Your task to perform on an android device: stop showing notifications on the lock screen Image 0: 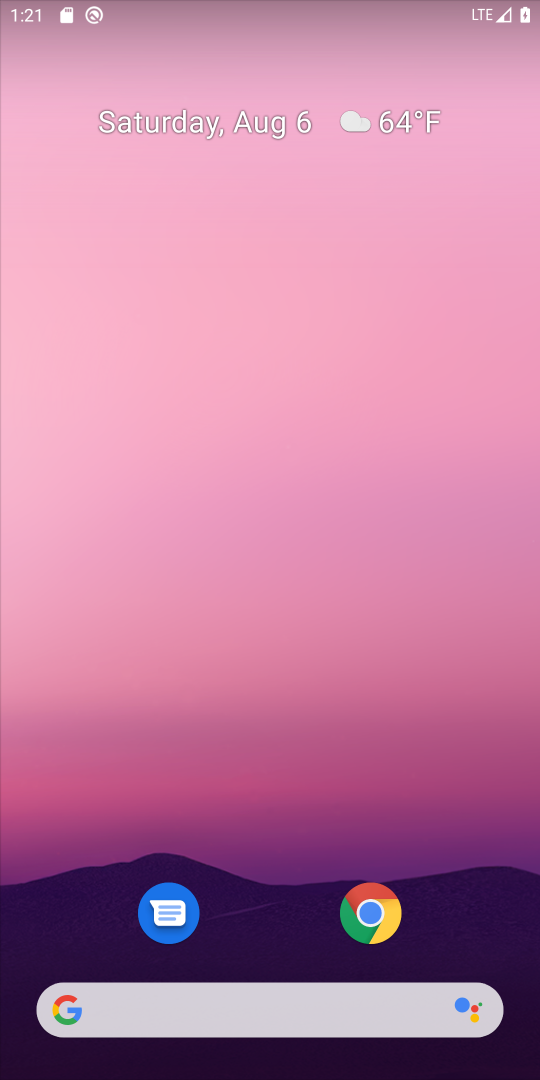
Step 0: press home button
Your task to perform on an android device: stop showing notifications on the lock screen Image 1: 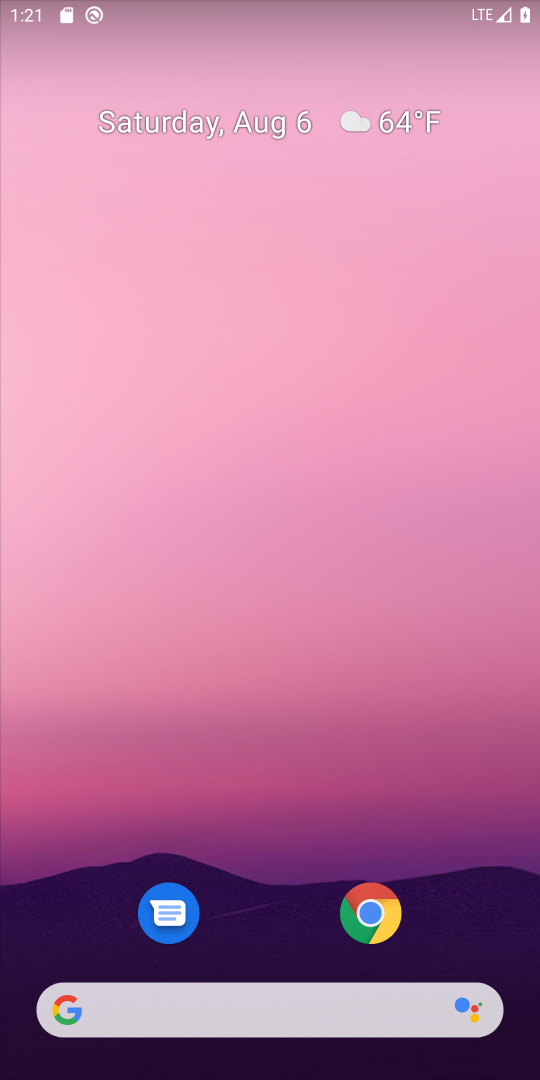
Step 1: drag from (260, 942) to (283, 261)
Your task to perform on an android device: stop showing notifications on the lock screen Image 2: 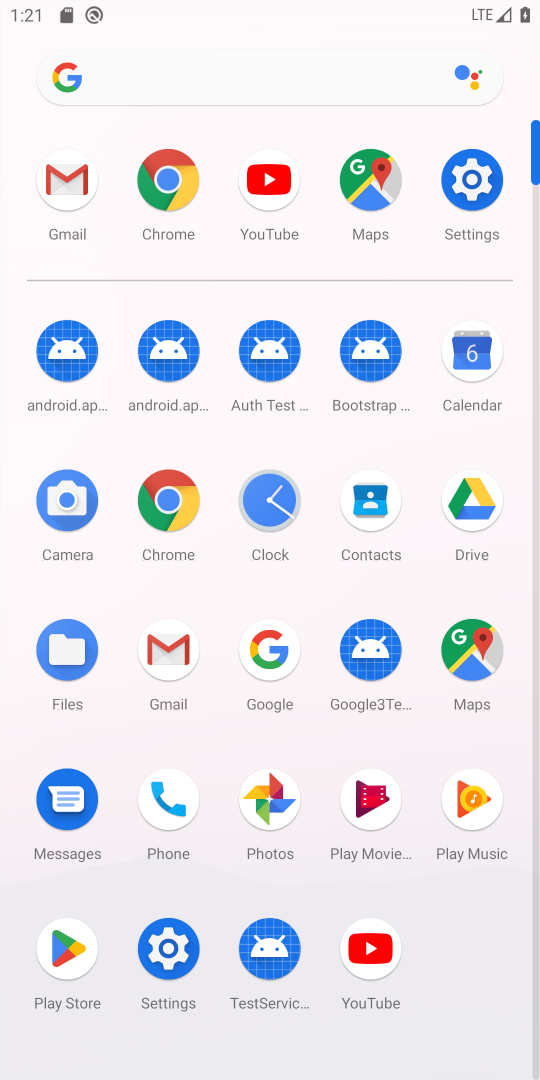
Step 2: click (479, 182)
Your task to perform on an android device: stop showing notifications on the lock screen Image 3: 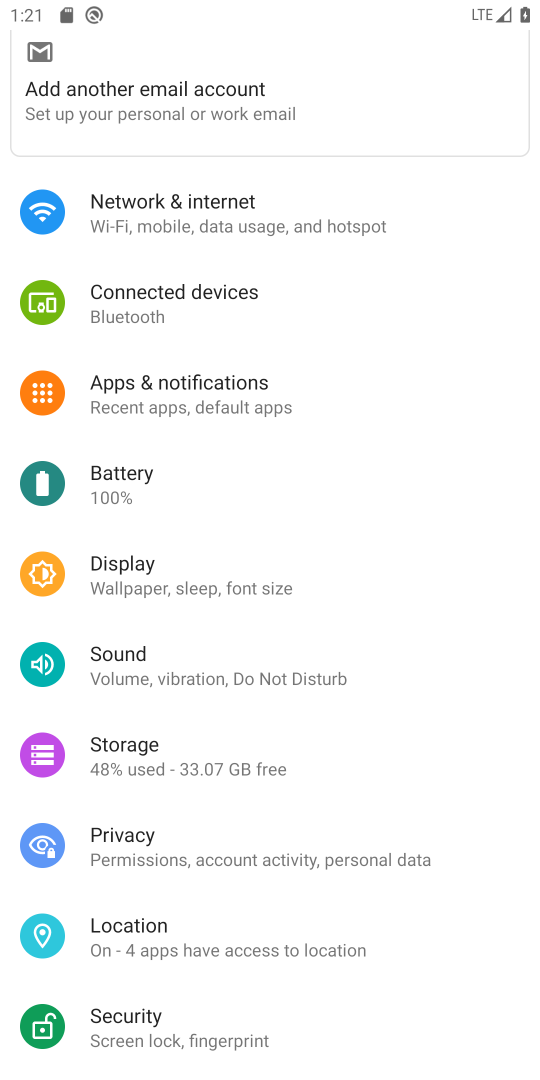
Step 3: drag from (432, 660) to (437, 512)
Your task to perform on an android device: stop showing notifications on the lock screen Image 4: 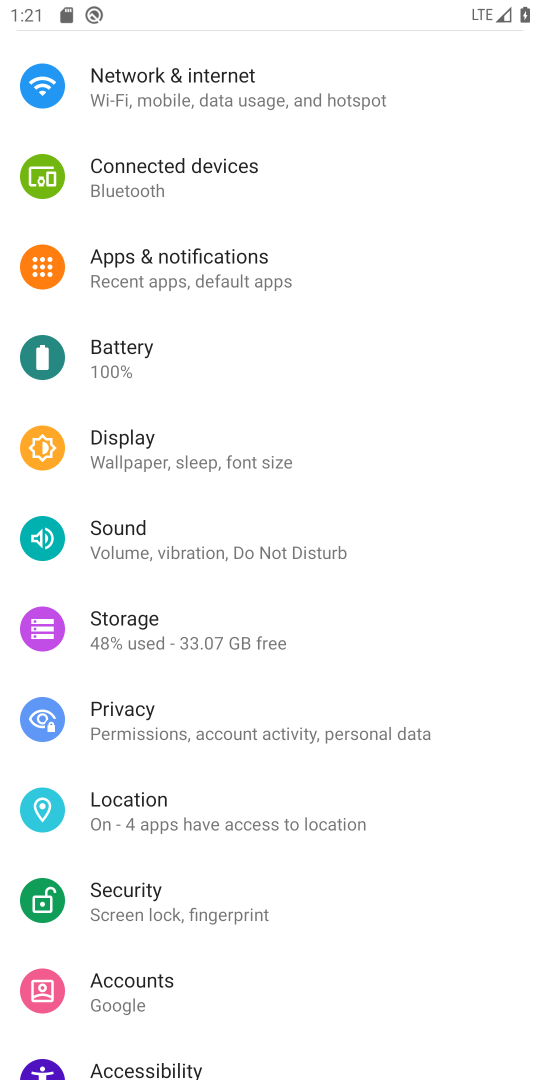
Step 4: drag from (462, 787) to (462, 572)
Your task to perform on an android device: stop showing notifications on the lock screen Image 5: 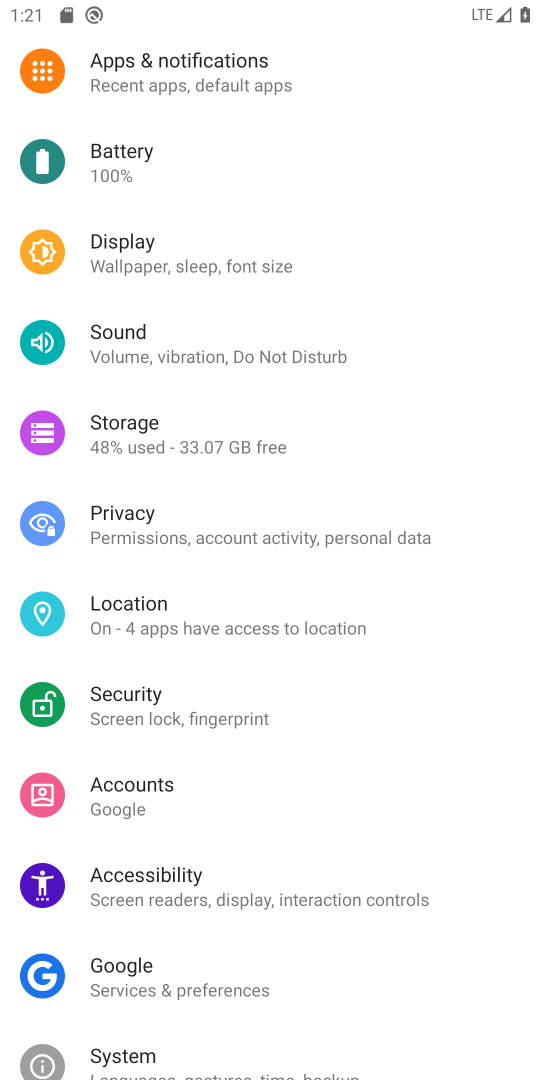
Step 5: drag from (443, 787) to (466, 561)
Your task to perform on an android device: stop showing notifications on the lock screen Image 6: 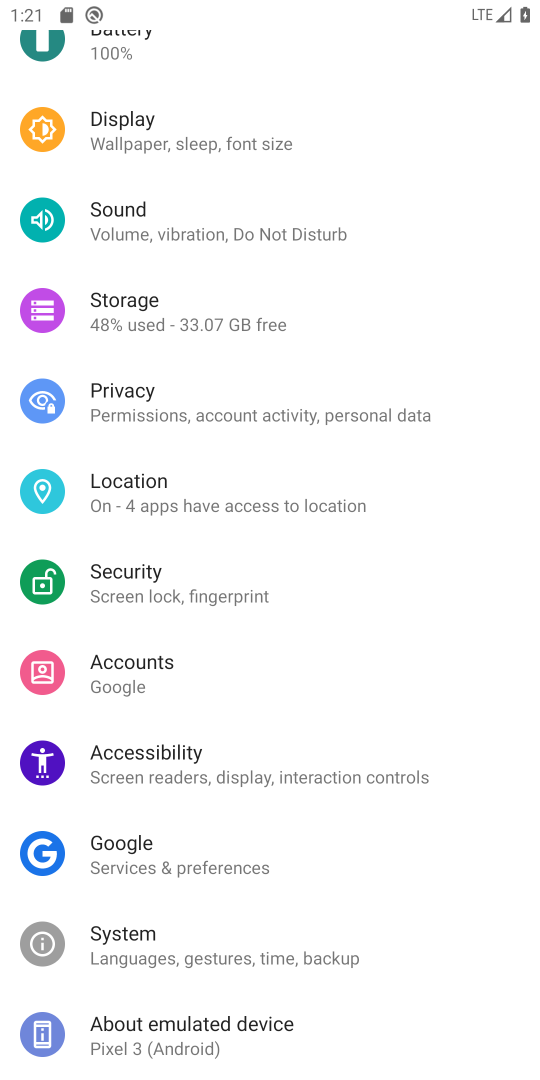
Step 6: drag from (455, 520) to (459, 621)
Your task to perform on an android device: stop showing notifications on the lock screen Image 7: 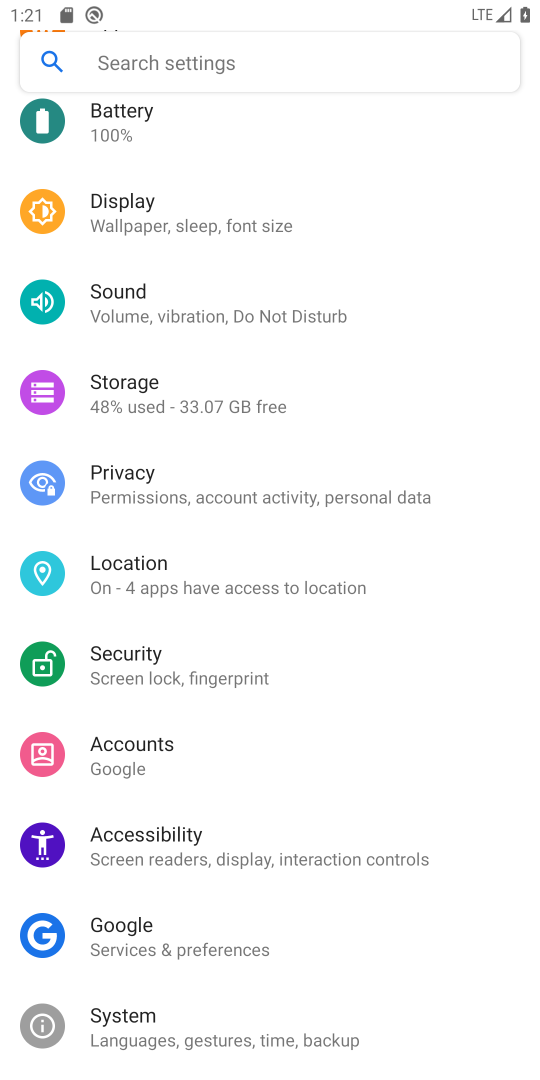
Step 7: drag from (477, 389) to (487, 576)
Your task to perform on an android device: stop showing notifications on the lock screen Image 8: 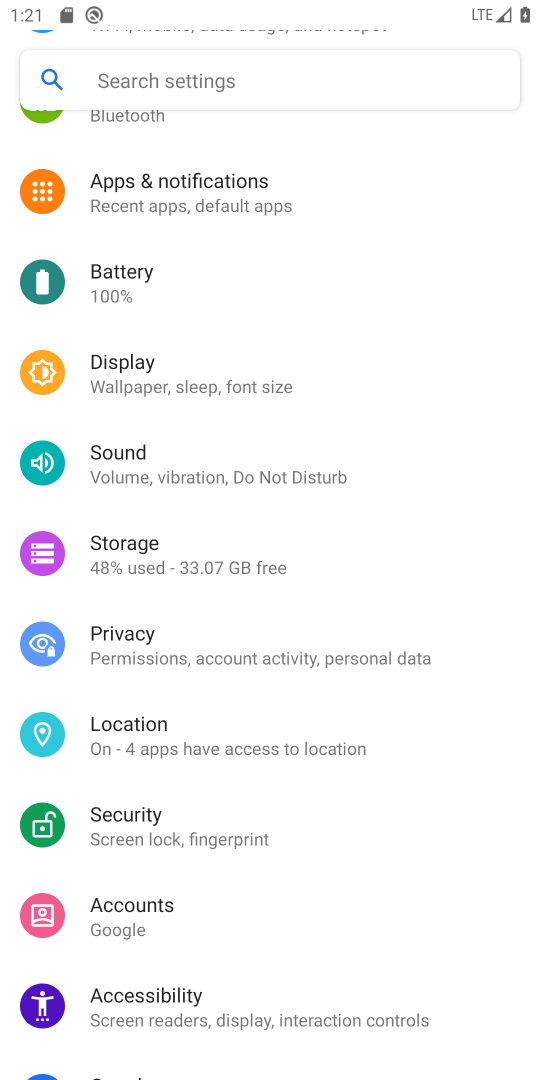
Step 8: drag from (467, 352) to (482, 561)
Your task to perform on an android device: stop showing notifications on the lock screen Image 9: 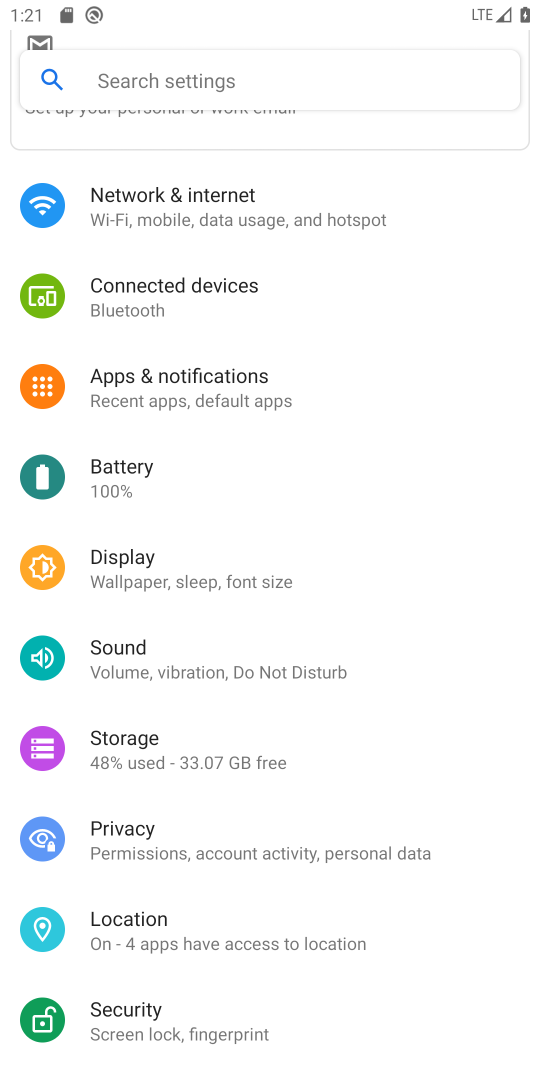
Step 9: drag from (472, 253) to (471, 543)
Your task to perform on an android device: stop showing notifications on the lock screen Image 10: 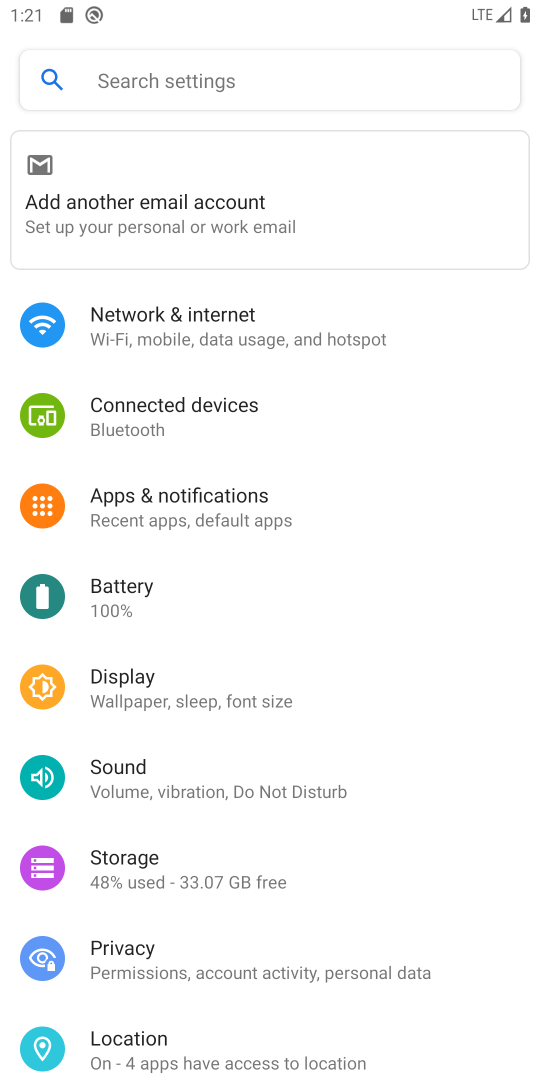
Step 10: click (352, 503)
Your task to perform on an android device: stop showing notifications on the lock screen Image 11: 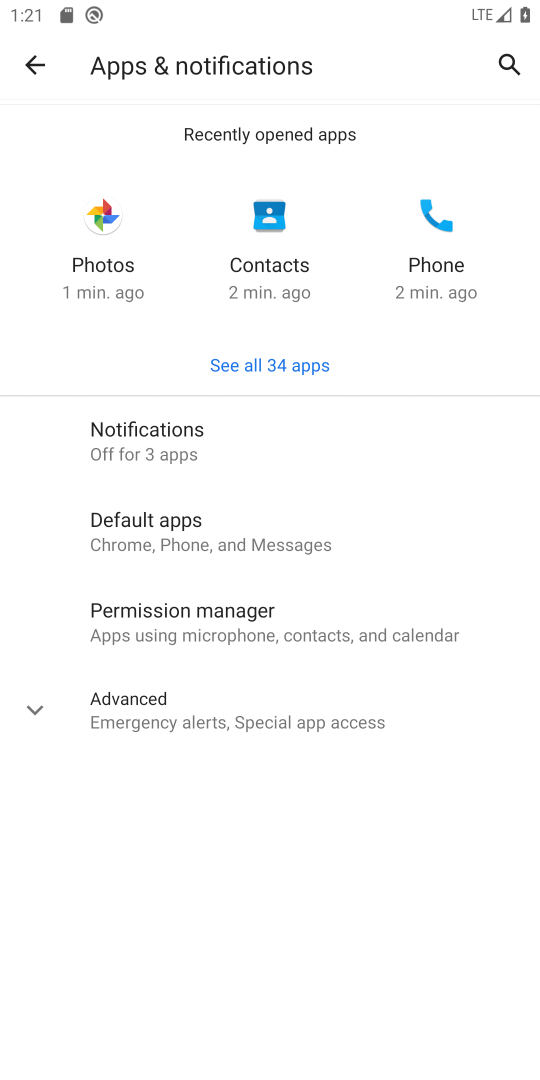
Step 11: click (198, 435)
Your task to perform on an android device: stop showing notifications on the lock screen Image 12: 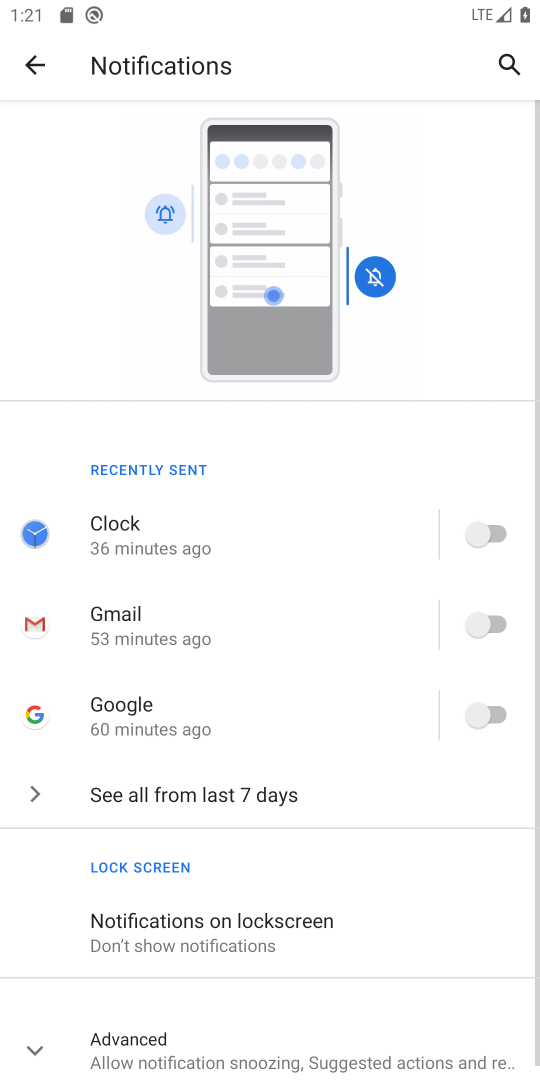
Step 12: drag from (274, 647) to (309, 478)
Your task to perform on an android device: stop showing notifications on the lock screen Image 13: 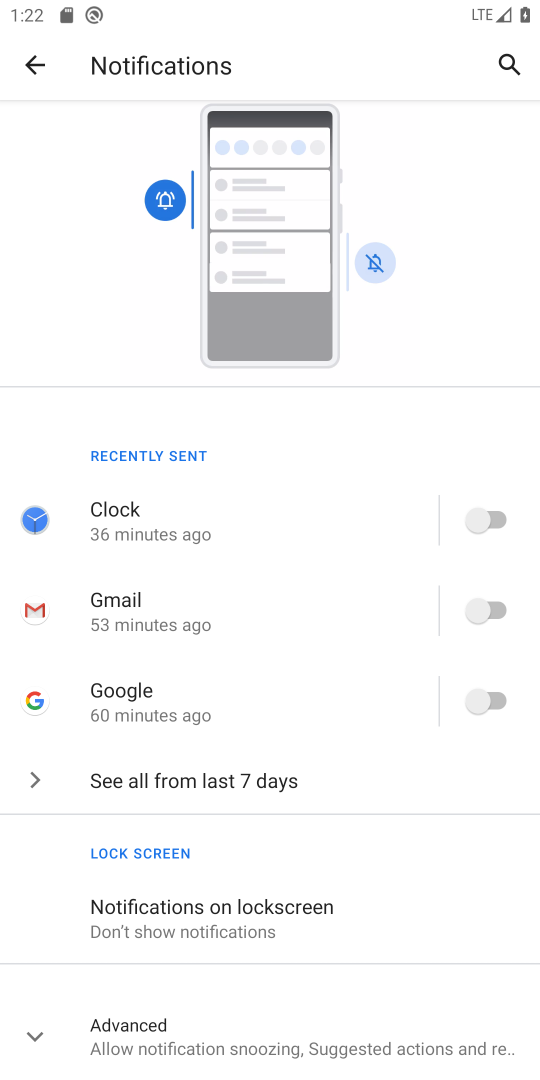
Step 13: click (251, 923)
Your task to perform on an android device: stop showing notifications on the lock screen Image 14: 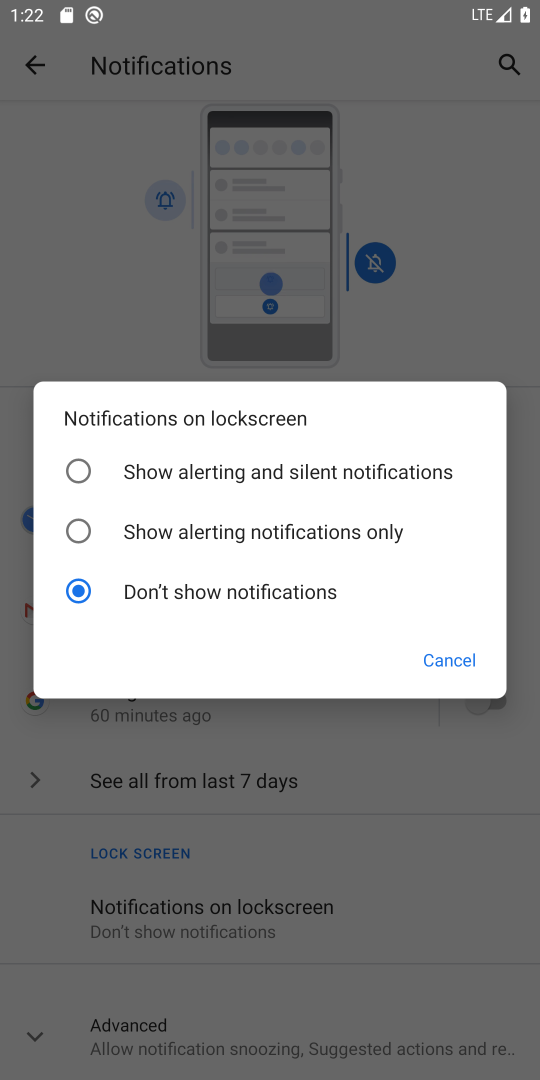
Step 14: task complete